Your task to perform on an android device: What's on my calendar today? Image 0: 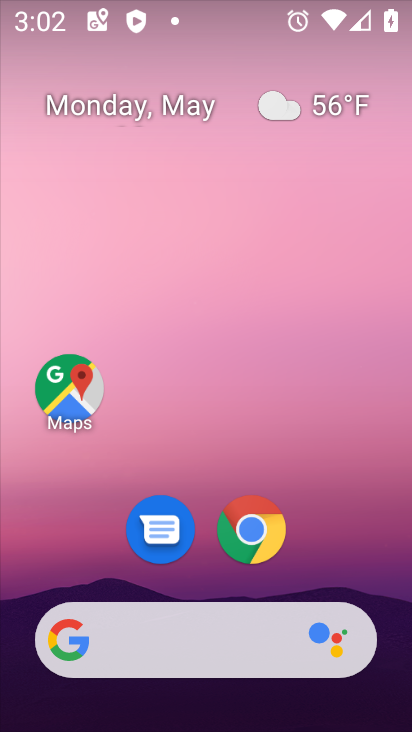
Step 0: drag from (338, 579) to (315, 89)
Your task to perform on an android device: What's on my calendar today? Image 1: 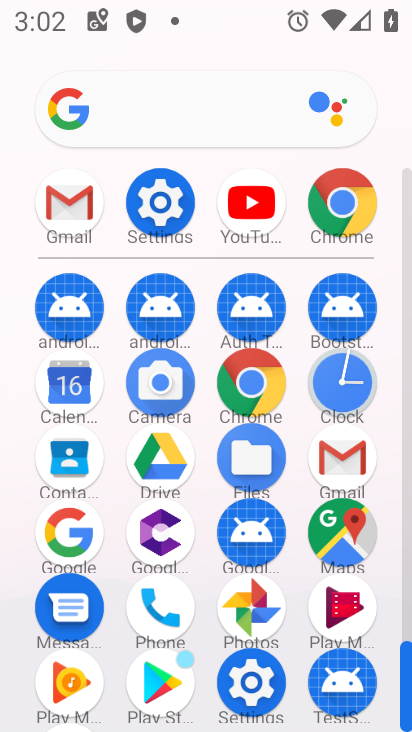
Step 1: click (59, 394)
Your task to perform on an android device: What's on my calendar today? Image 2: 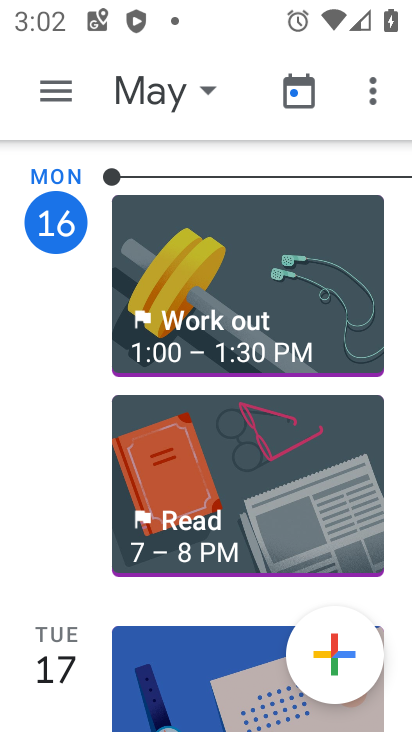
Step 2: click (168, 96)
Your task to perform on an android device: What's on my calendar today? Image 3: 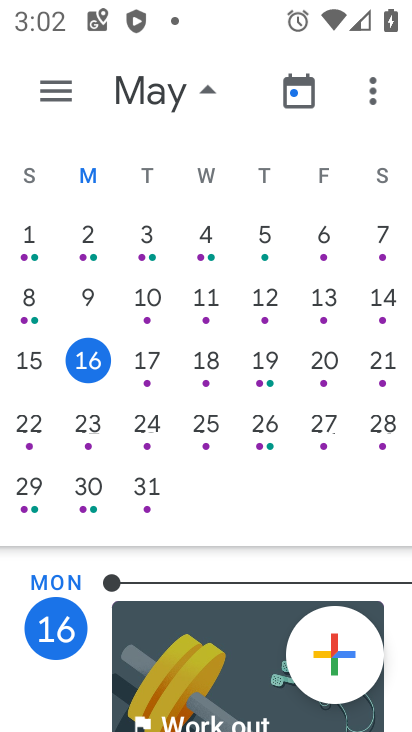
Step 3: click (91, 355)
Your task to perform on an android device: What's on my calendar today? Image 4: 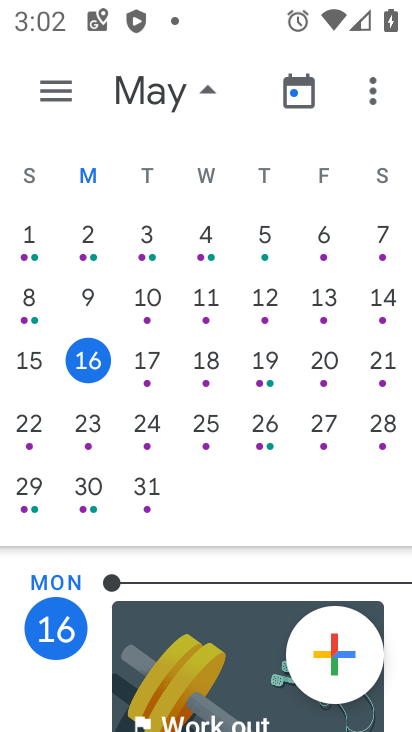
Step 4: task complete